Your task to perform on an android device: move a message to another label in the gmail app Image 0: 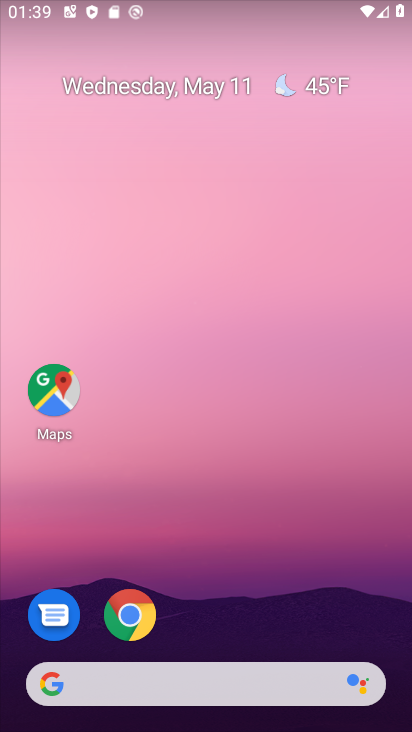
Step 0: drag from (287, 564) to (283, 53)
Your task to perform on an android device: move a message to another label in the gmail app Image 1: 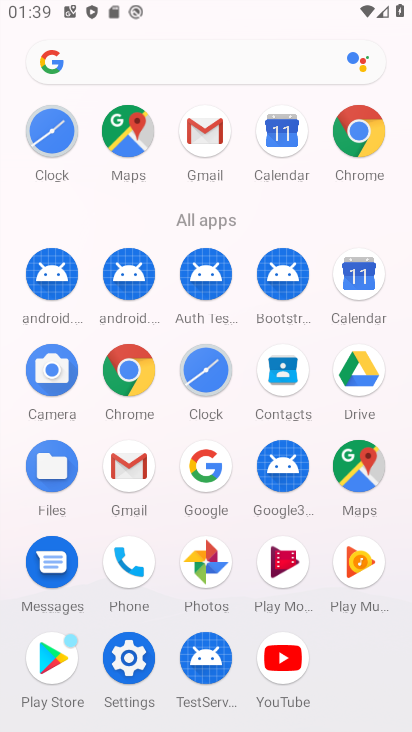
Step 1: click (131, 470)
Your task to perform on an android device: move a message to another label in the gmail app Image 2: 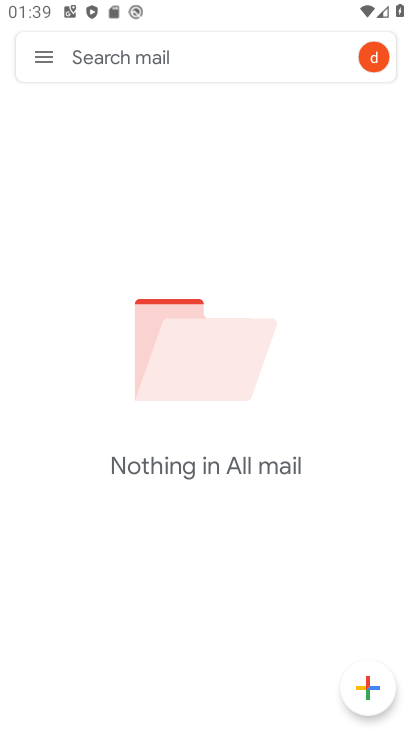
Step 2: click (55, 58)
Your task to perform on an android device: move a message to another label in the gmail app Image 3: 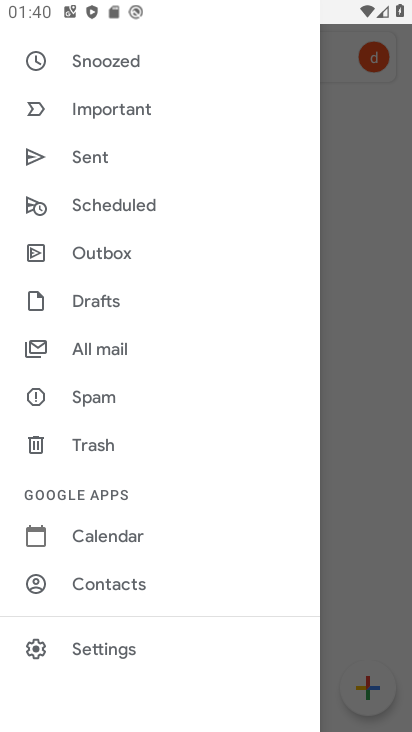
Step 3: click (137, 351)
Your task to perform on an android device: move a message to another label in the gmail app Image 4: 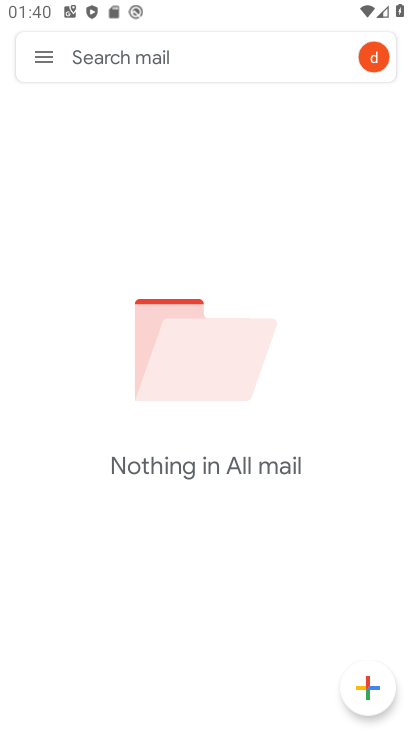
Step 4: task complete